Your task to perform on an android device: Open Amazon Image 0: 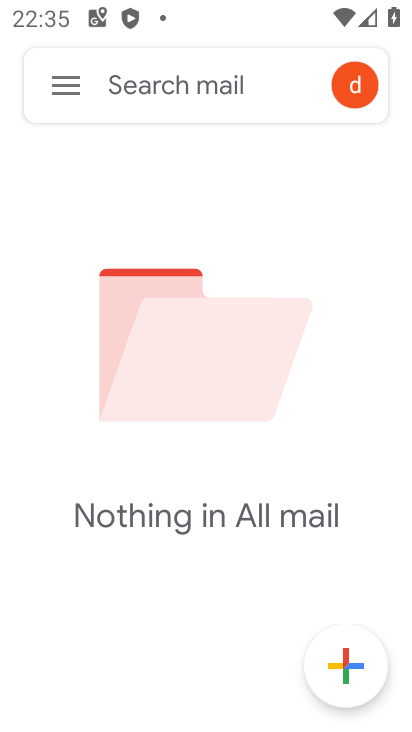
Step 0: press home button
Your task to perform on an android device: Open Amazon Image 1: 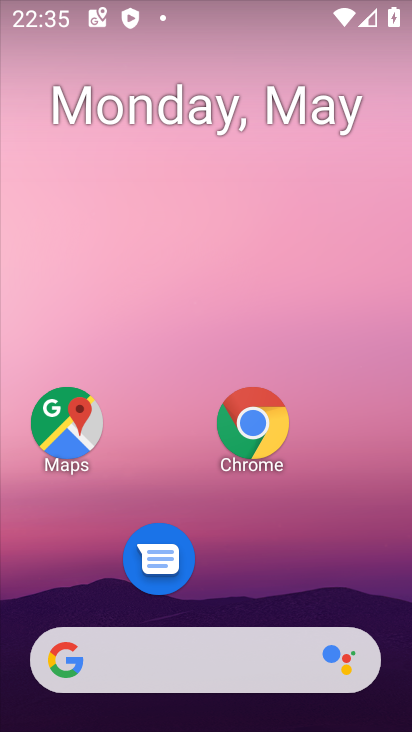
Step 1: click (270, 406)
Your task to perform on an android device: Open Amazon Image 2: 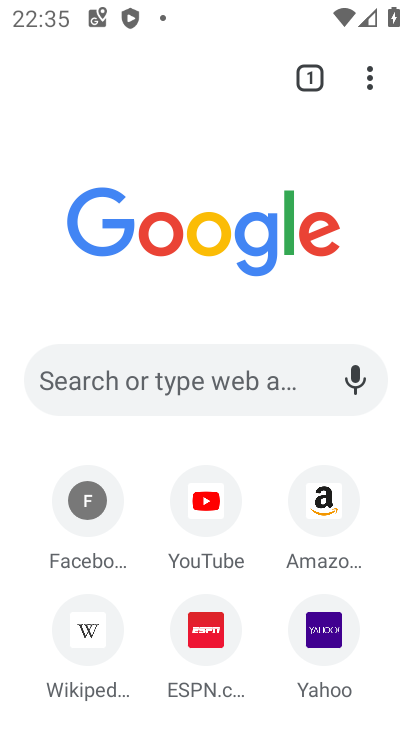
Step 2: click (310, 509)
Your task to perform on an android device: Open Amazon Image 3: 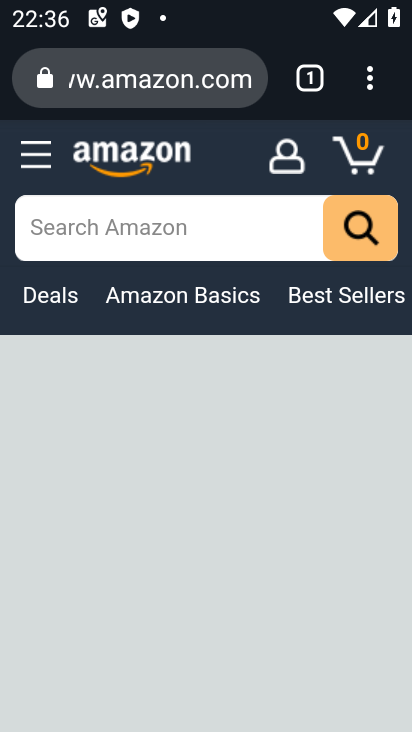
Step 3: task complete